Your task to perform on an android device: Open eBay Image 0: 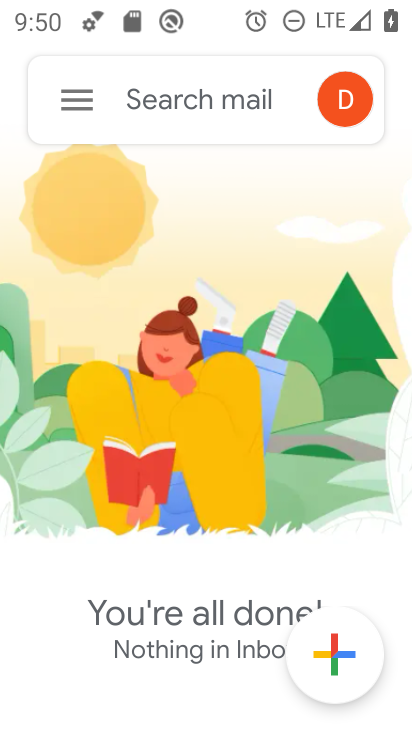
Step 0: press home button
Your task to perform on an android device: Open eBay Image 1: 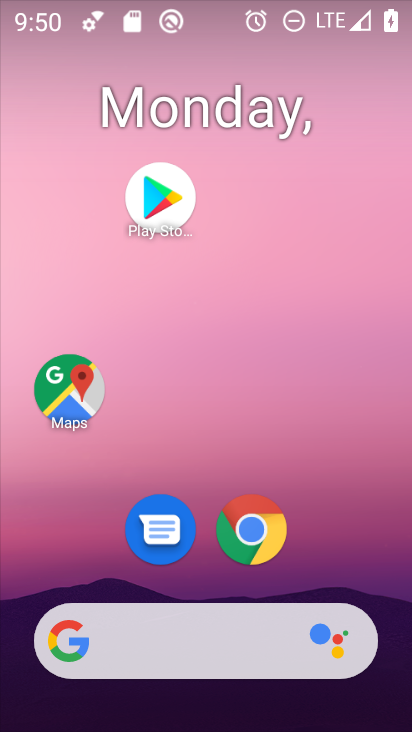
Step 1: drag from (325, 516) to (244, 139)
Your task to perform on an android device: Open eBay Image 2: 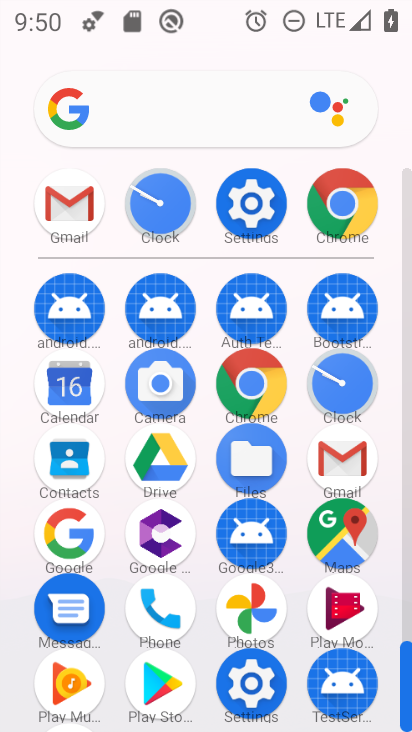
Step 2: click (252, 382)
Your task to perform on an android device: Open eBay Image 3: 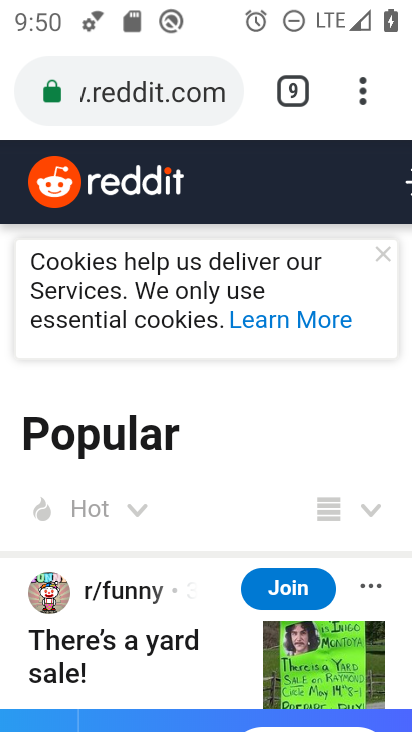
Step 3: click (359, 79)
Your task to perform on an android device: Open eBay Image 4: 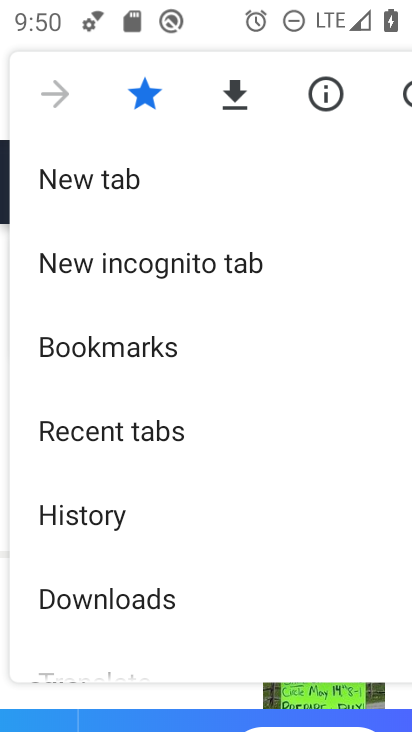
Step 4: click (111, 164)
Your task to perform on an android device: Open eBay Image 5: 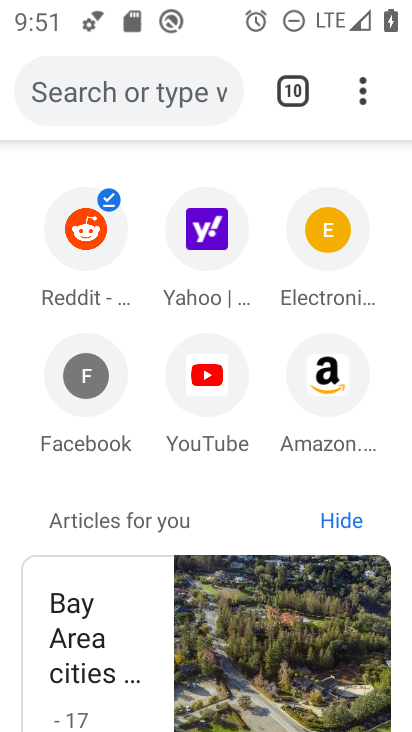
Step 5: click (134, 95)
Your task to perform on an android device: Open eBay Image 6: 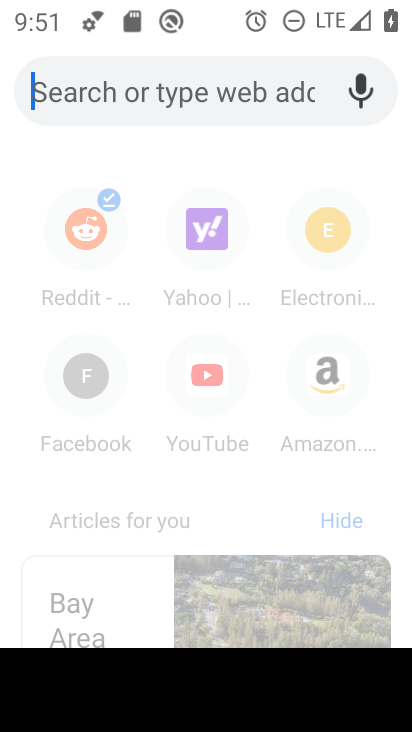
Step 6: type "ebay"
Your task to perform on an android device: Open eBay Image 7: 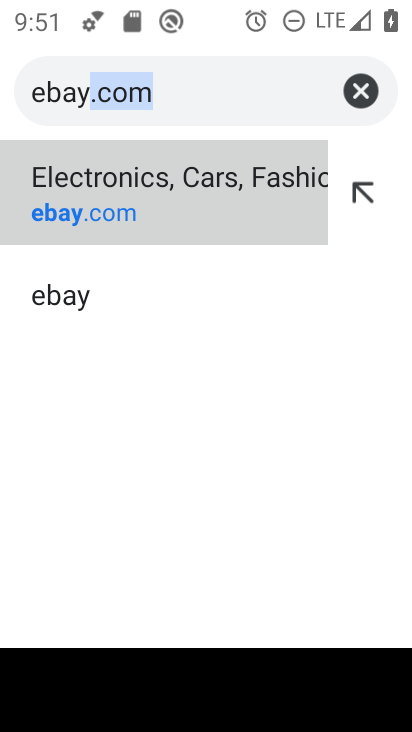
Step 7: click (71, 180)
Your task to perform on an android device: Open eBay Image 8: 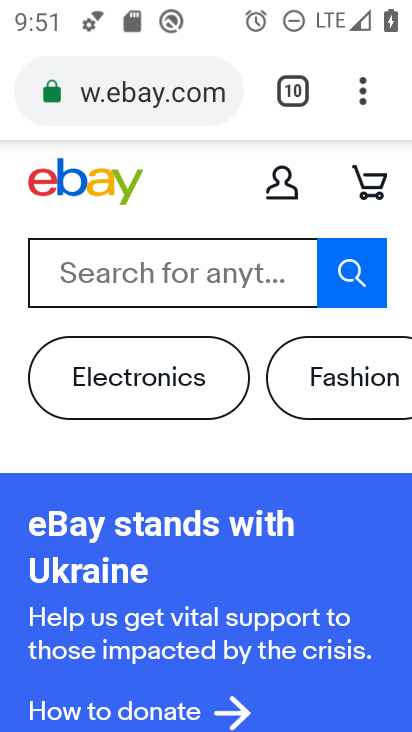
Step 8: task complete